Your task to perform on an android device: Do I have any events tomorrow? Image 0: 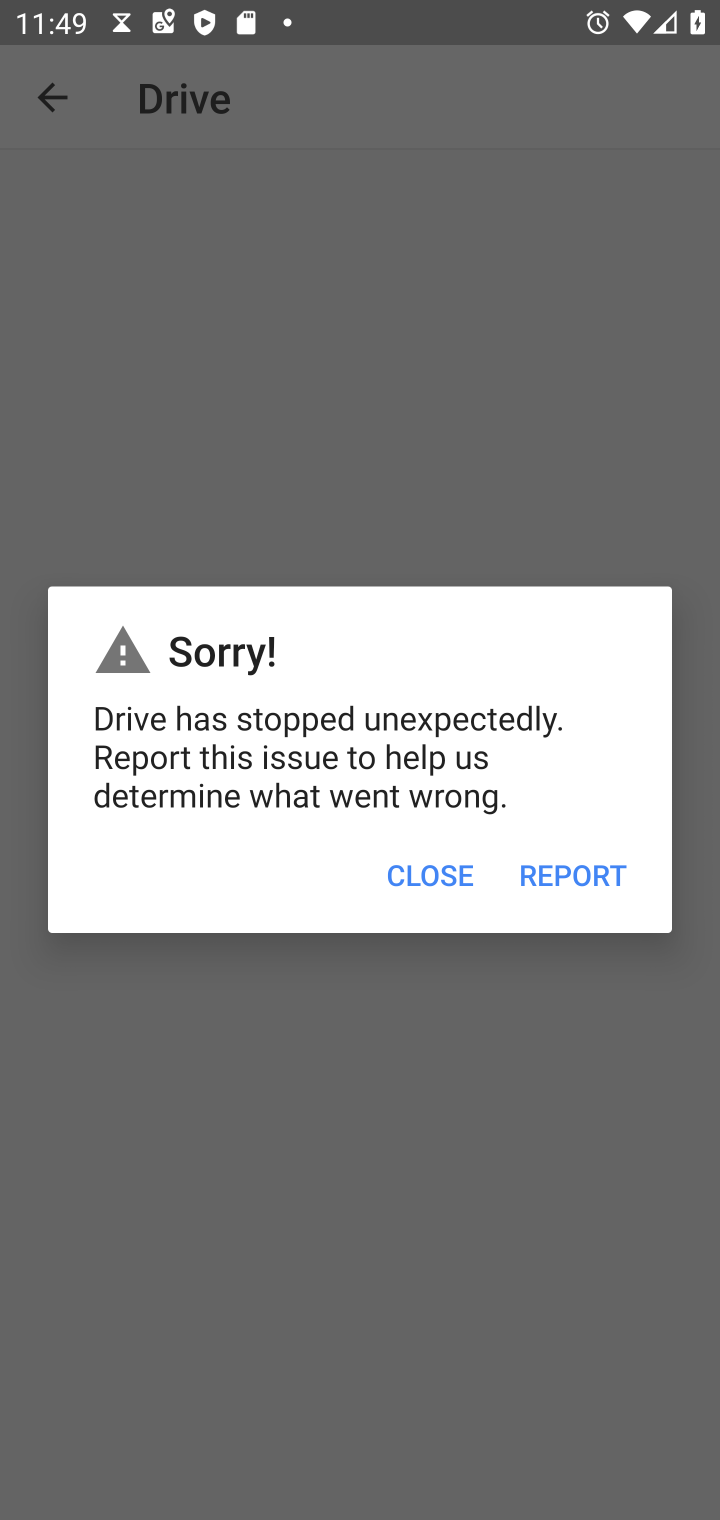
Step 0: press home button
Your task to perform on an android device: Do I have any events tomorrow? Image 1: 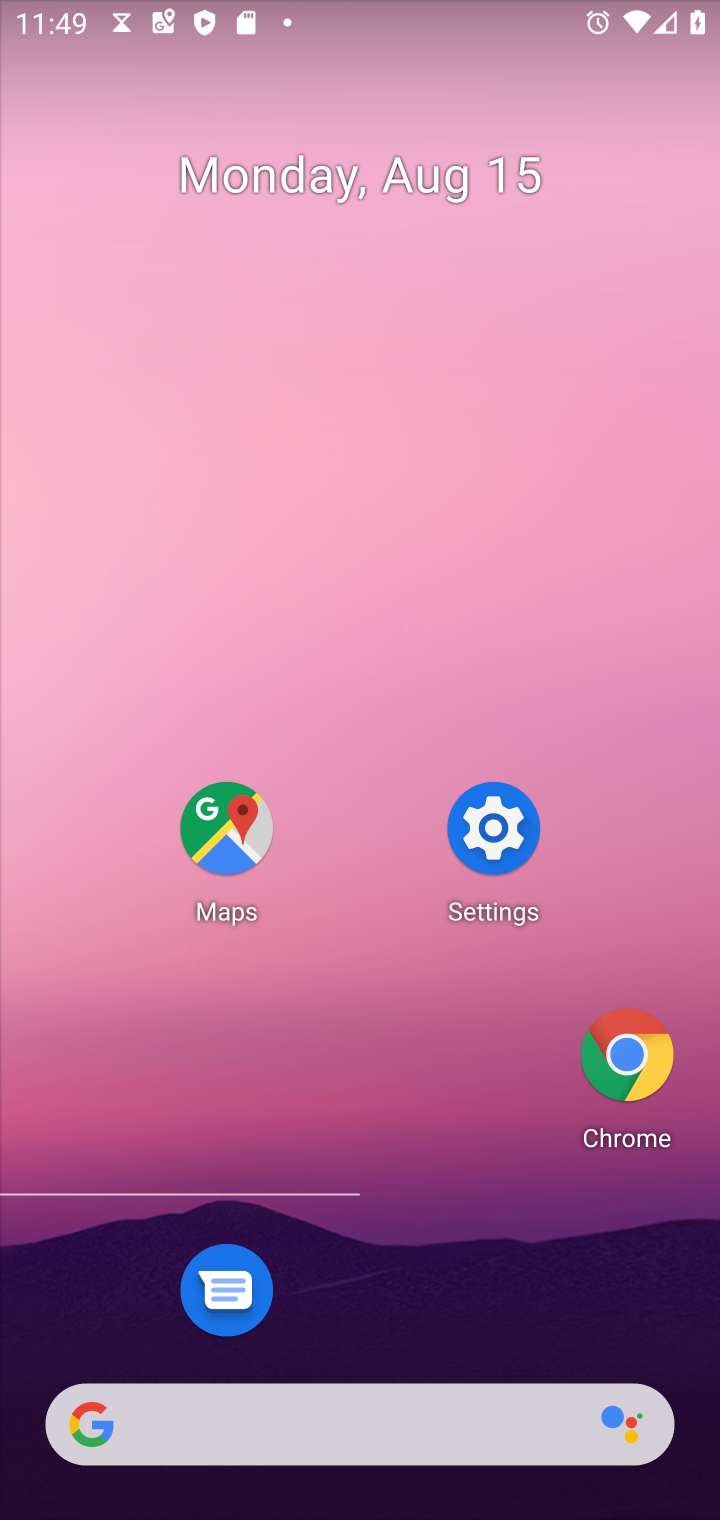
Step 1: drag from (265, 1419) to (571, 131)
Your task to perform on an android device: Do I have any events tomorrow? Image 2: 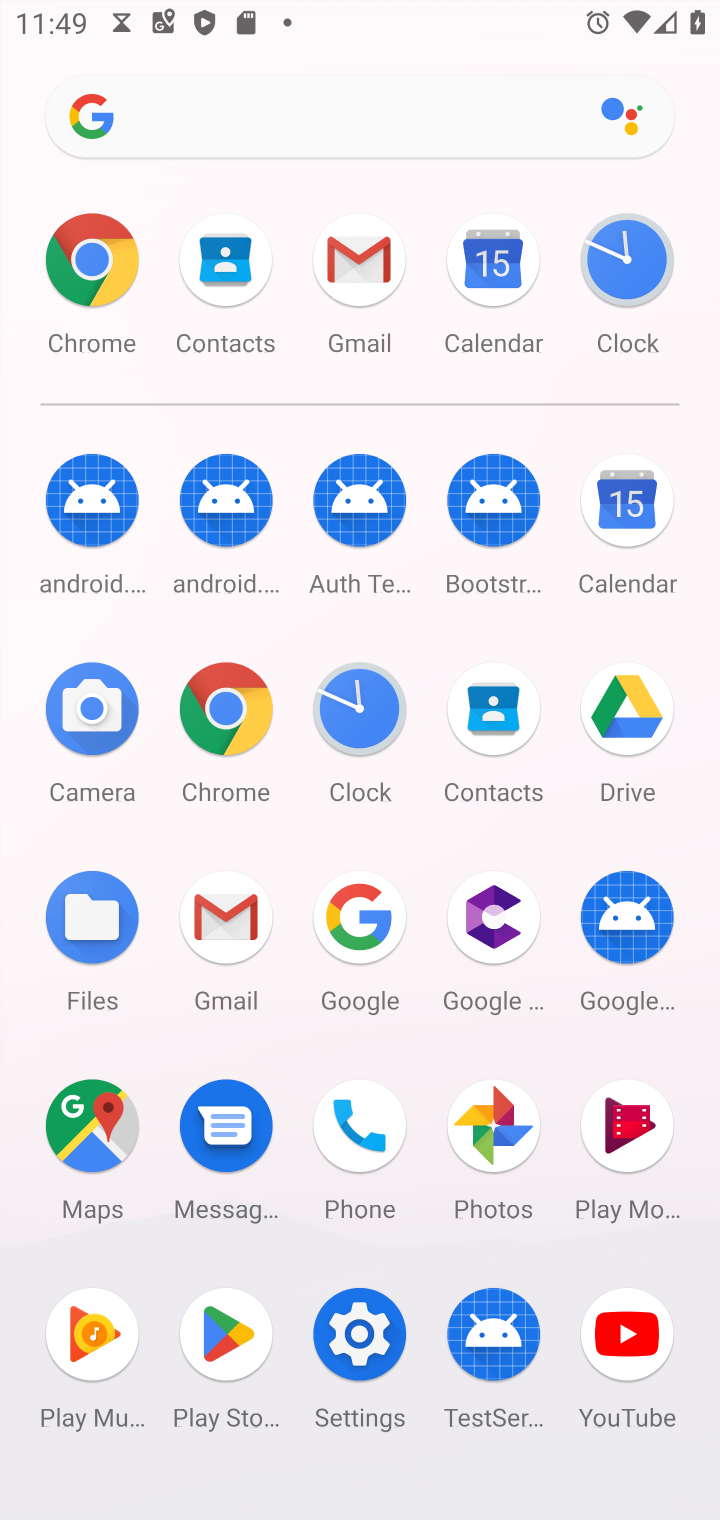
Step 2: click (629, 515)
Your task to perform on an android device: Do I have any events tomorrow? Image 3: 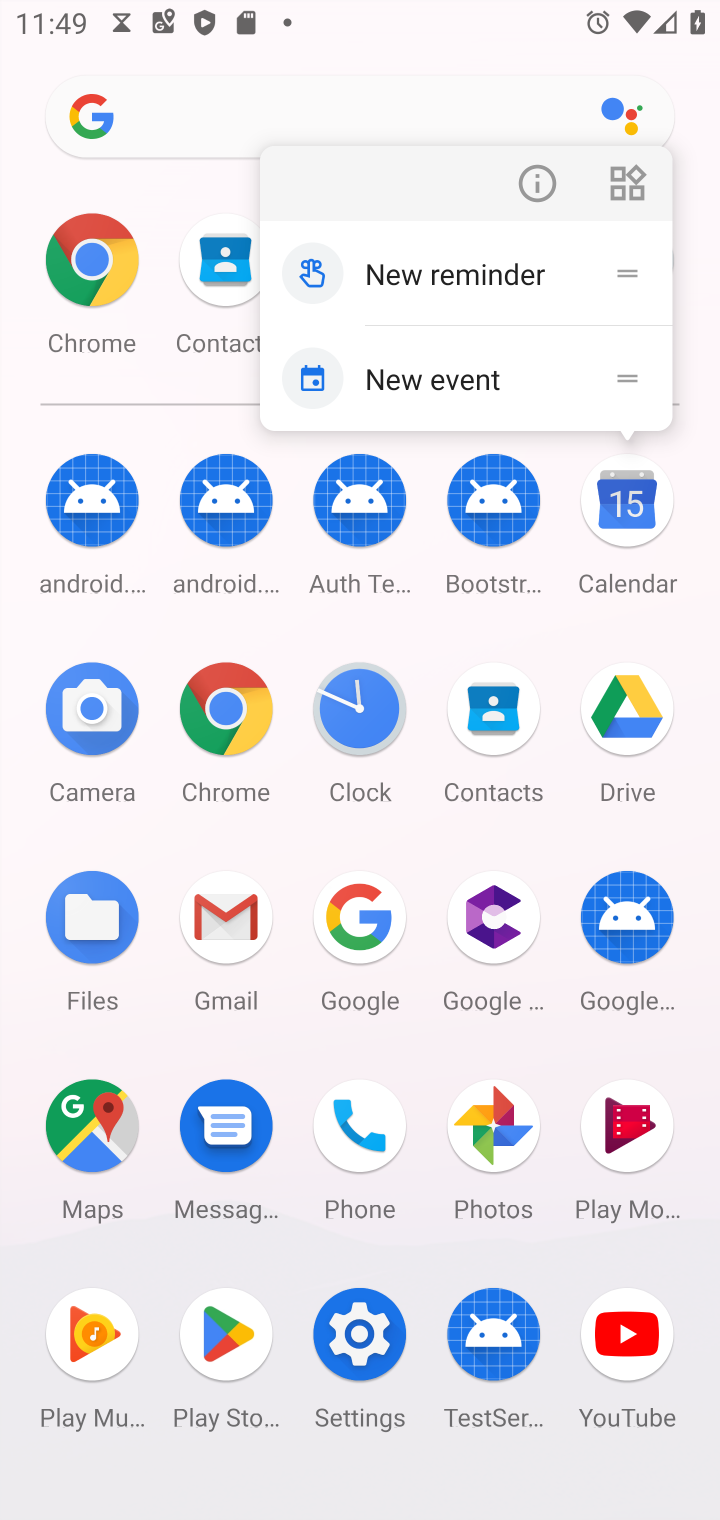
Step 3: click (629, 524)
Your task to perform on an android device: Do I have any events tomorrow? Image 4: 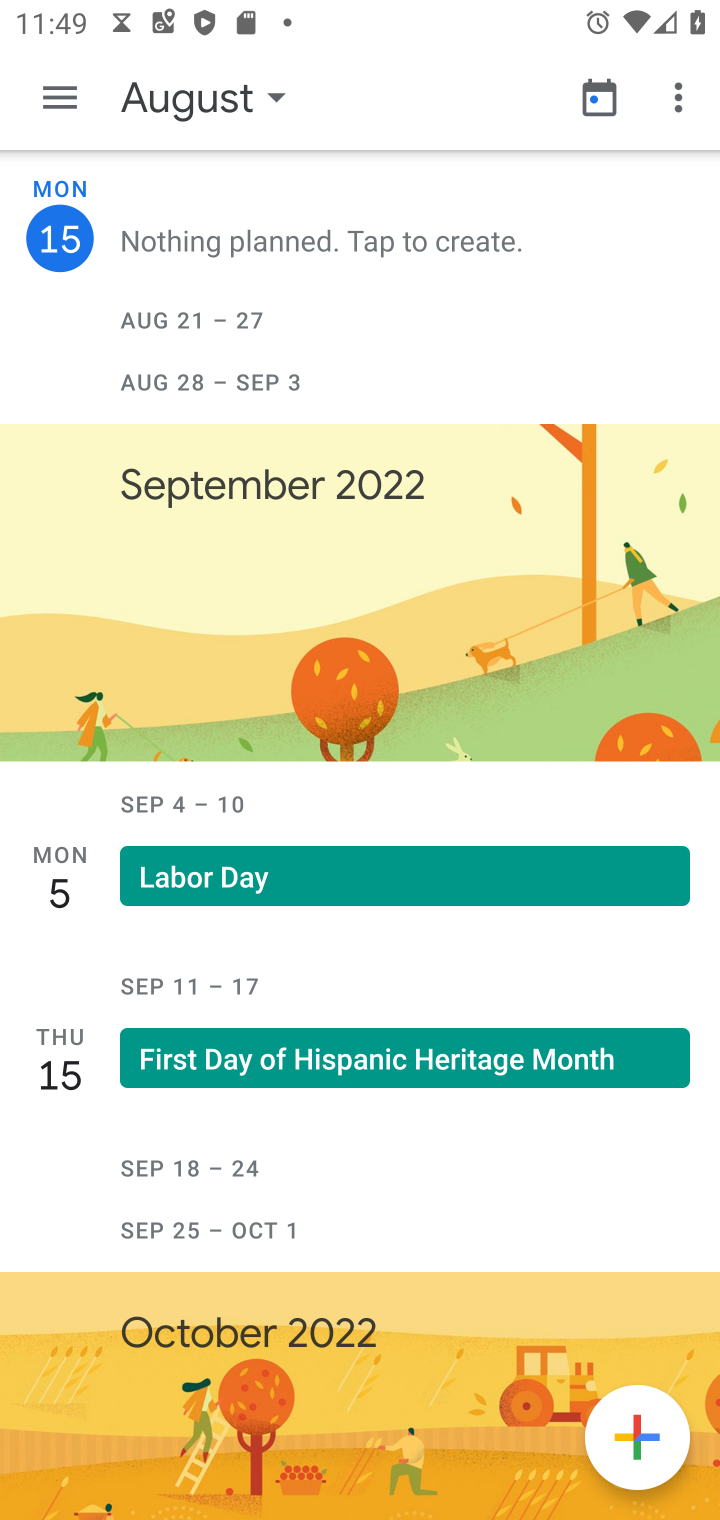
Step 4: click (181, 98)
Your task to perform on an android device: Do I have any events tomorrow? Image 5: 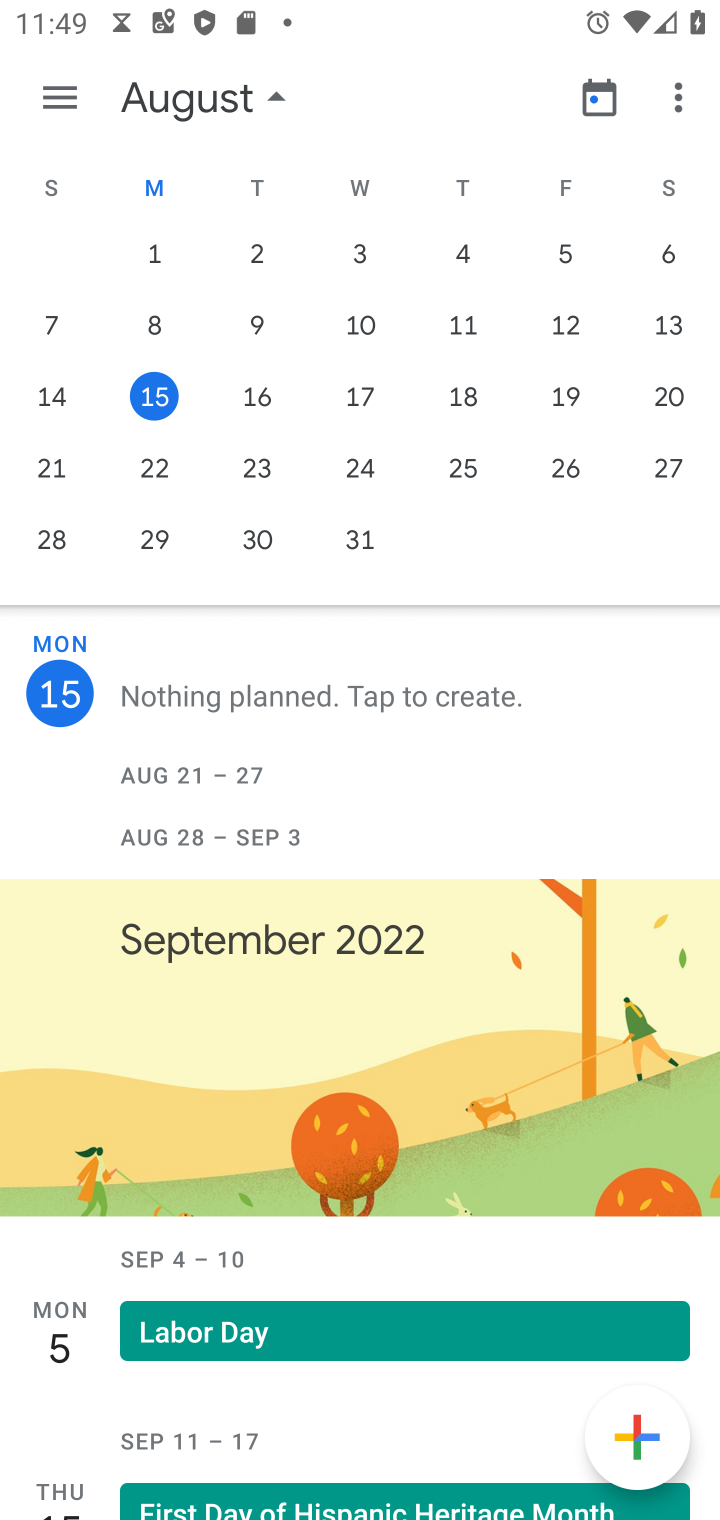
Step 5: click (253, 387)
Your task to perform on an android device: Do I have any events tomorrow? Image 6: 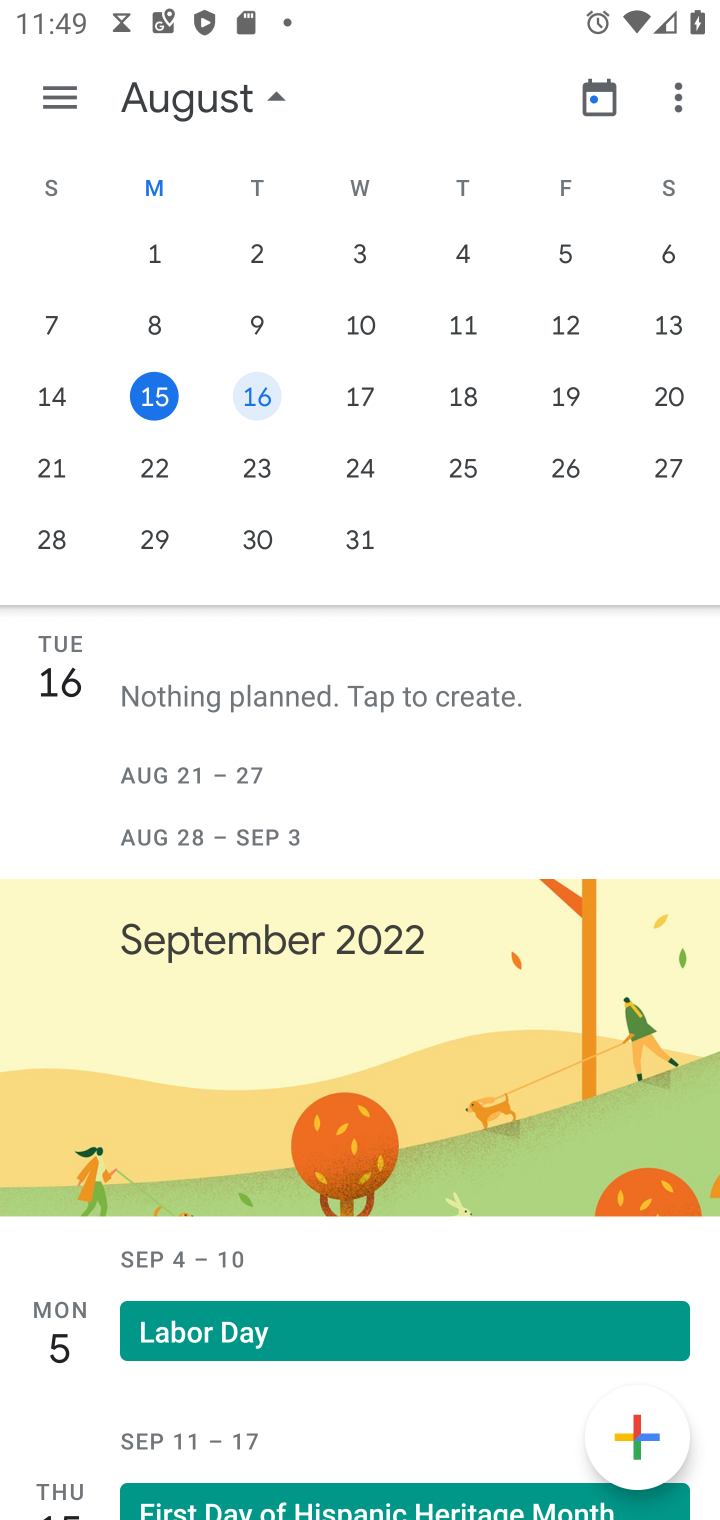
Step 6: click (43, 97)
Your task to perform on an android device: Do I have any events tomorrow? Image 7: 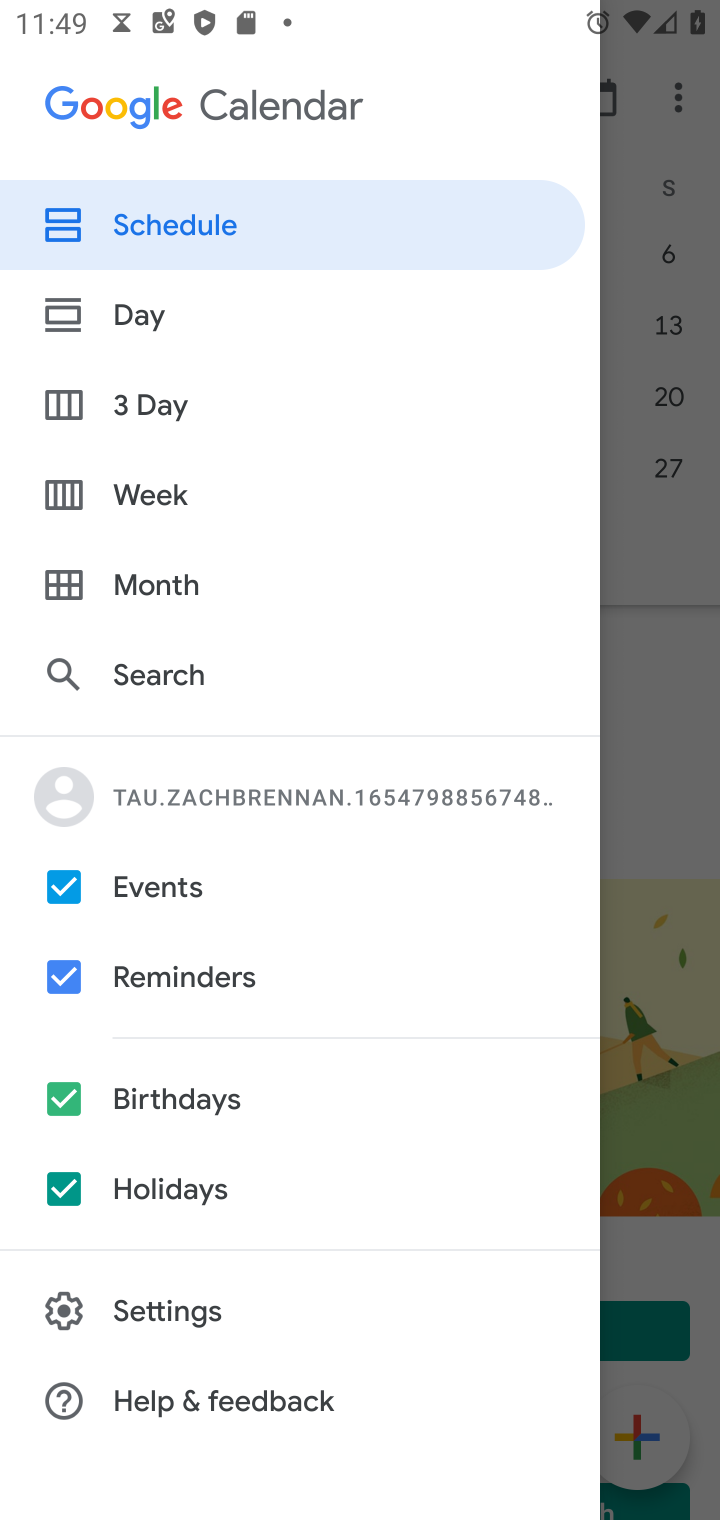
Step 7: click (215, 217)
Your task to perform on an android device: Do I have any events tomorrow? Image 8: 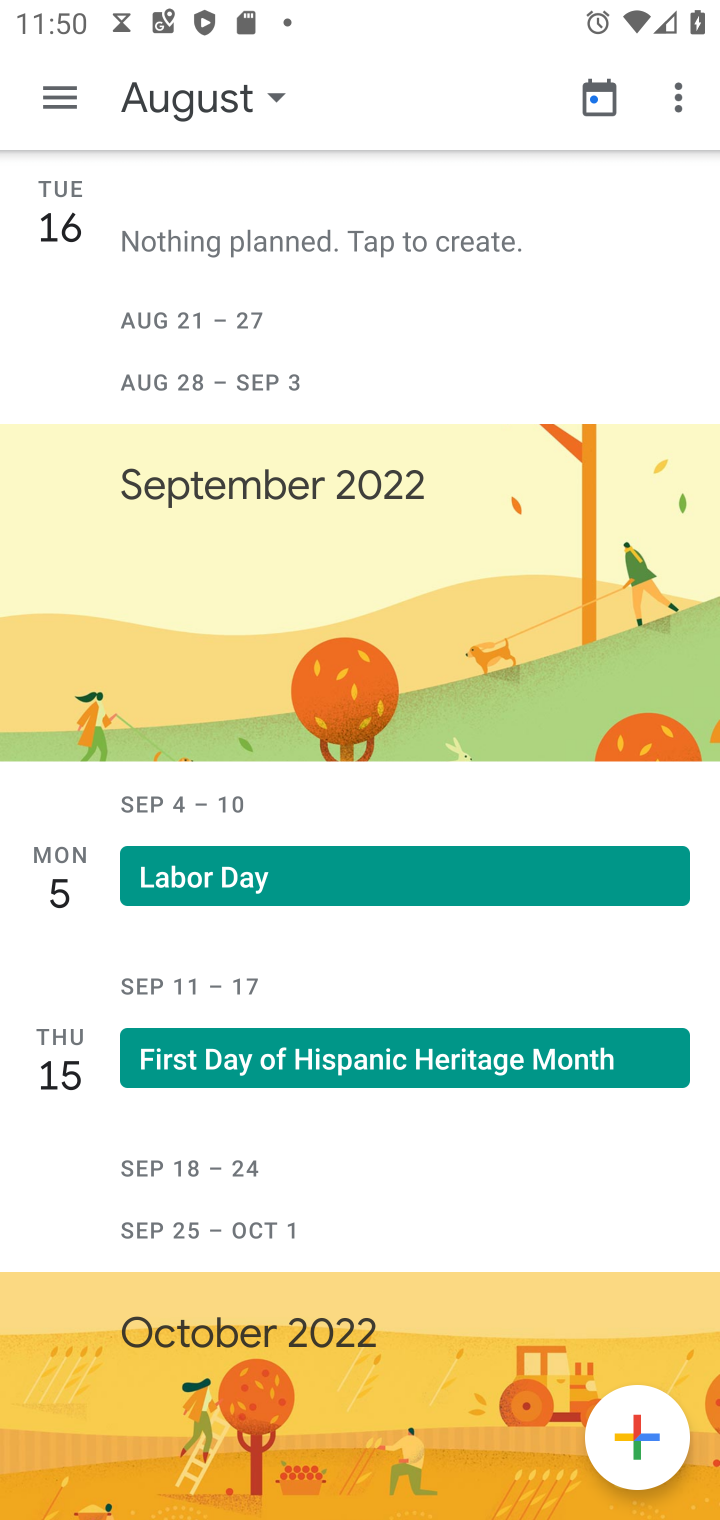
Step 8: task complete